Your task to perform on an android device: See recent photos Image 0: 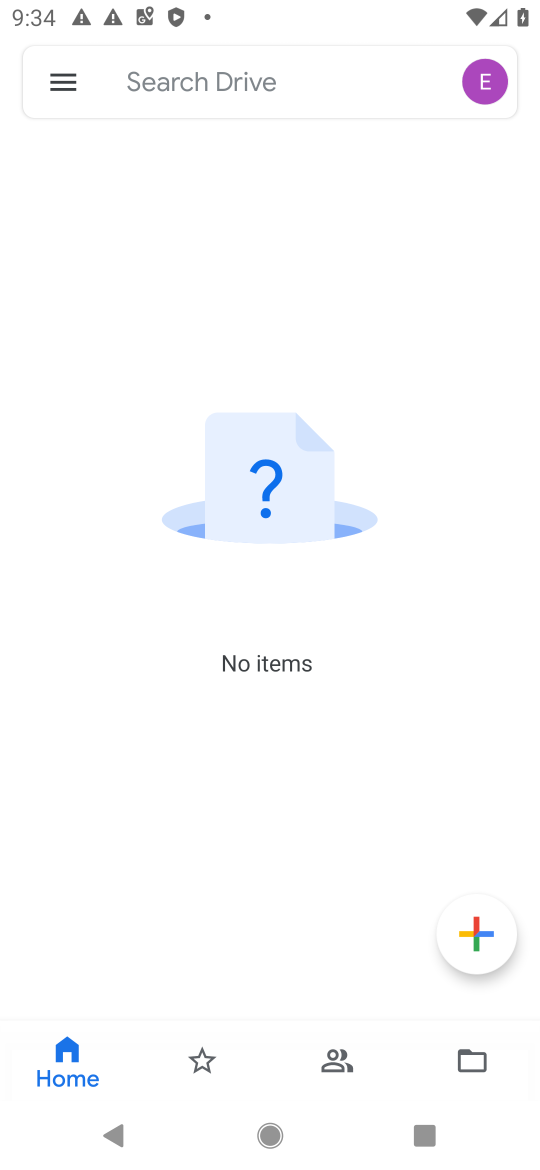
Step 0: press home button
Your task to perform on an android device: See recent photos Image 1: 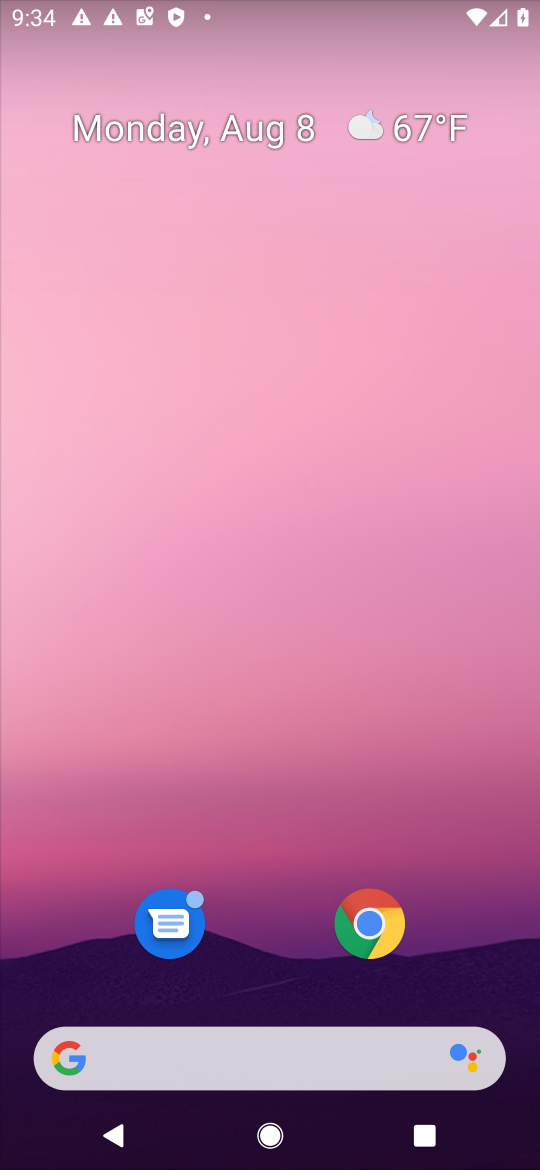
Step 1: drag from (20, 1121) to (228, 211)
Your task to perform on an android device: See recent photos Image 2: 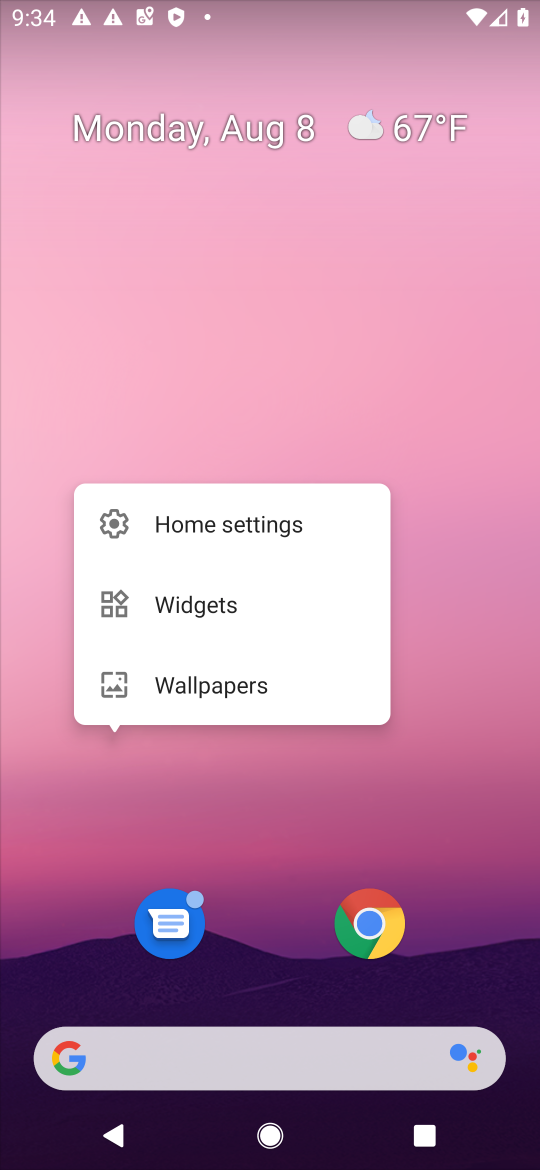
Step 2: drag from (56, 1136) to (352, 194)
Your task to perform on an android device: See recent photos Image 3: 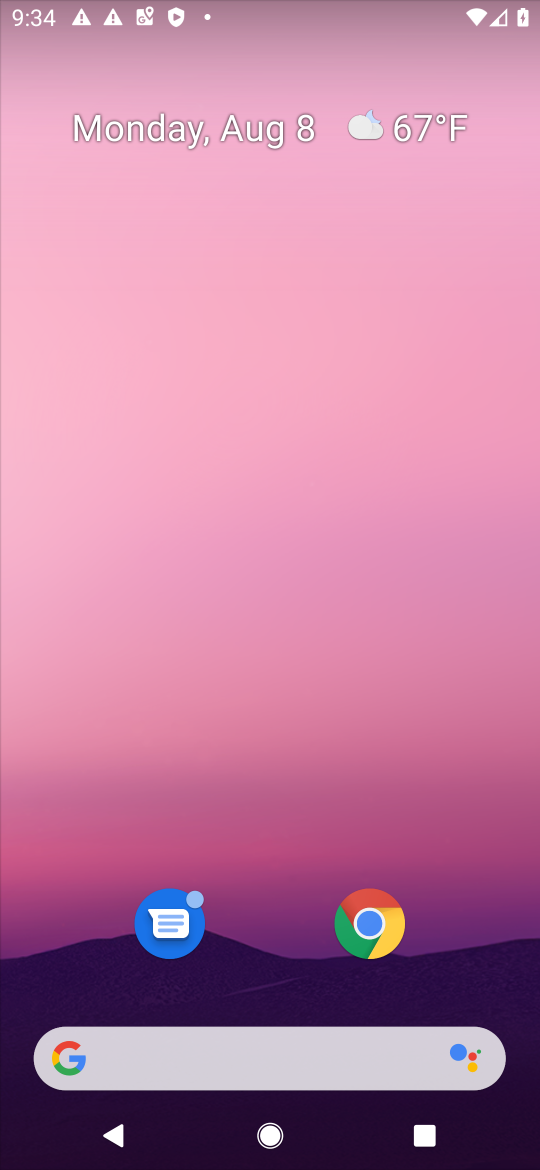
Step 3: drag from (41, 1122) to (294, 364)
Your task to perform on an android device: See recent photos Image 4: 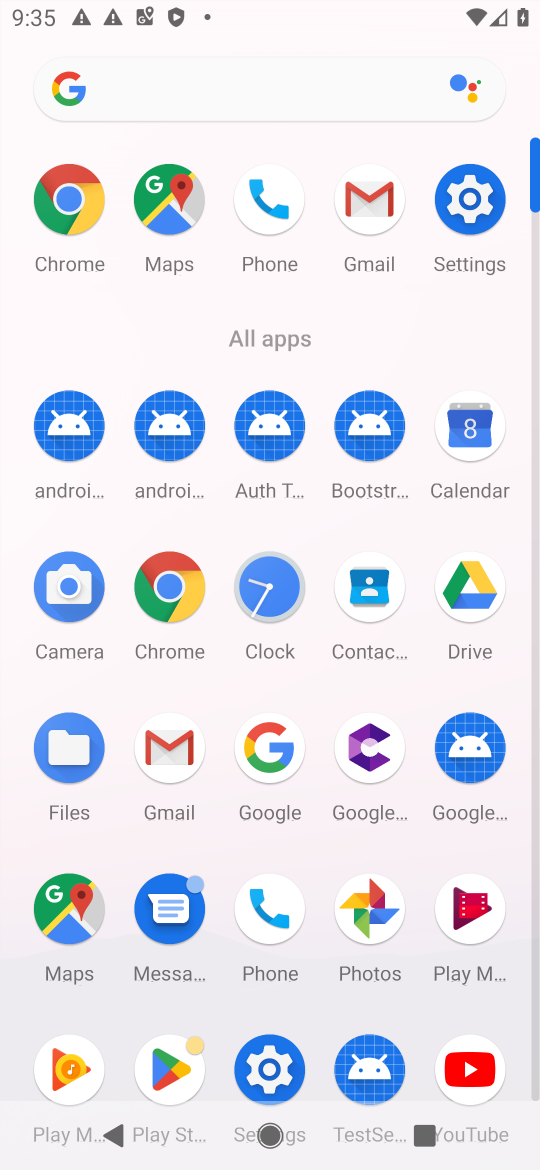
Step 4: click (344, 902)
Your task to perform on an android device: See recent photos Image 5: 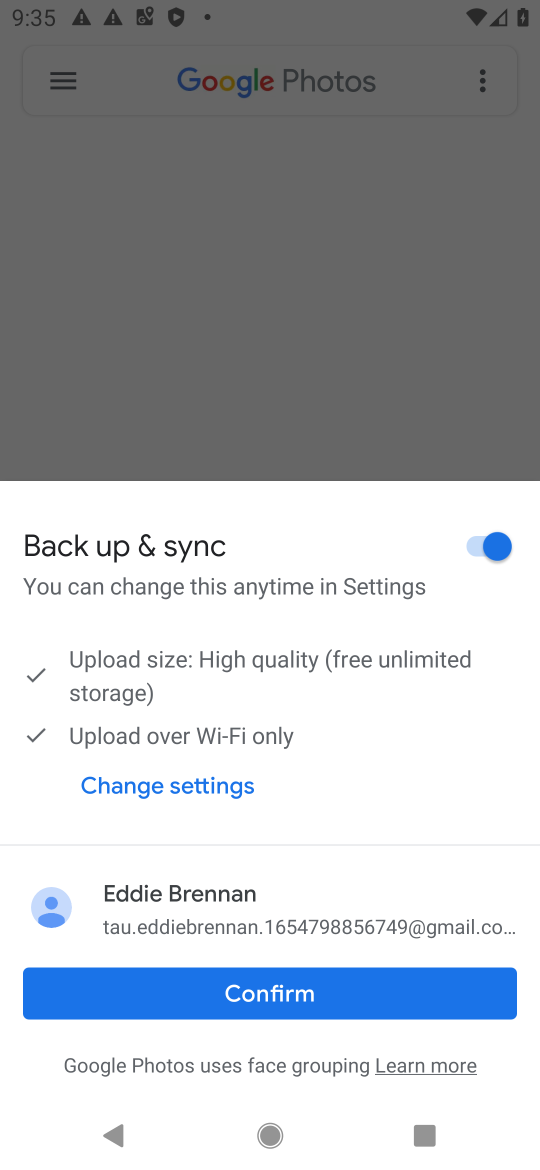
Step 5: click (295, 982)
Your task to perform on an android device: See recent photos Image 6: 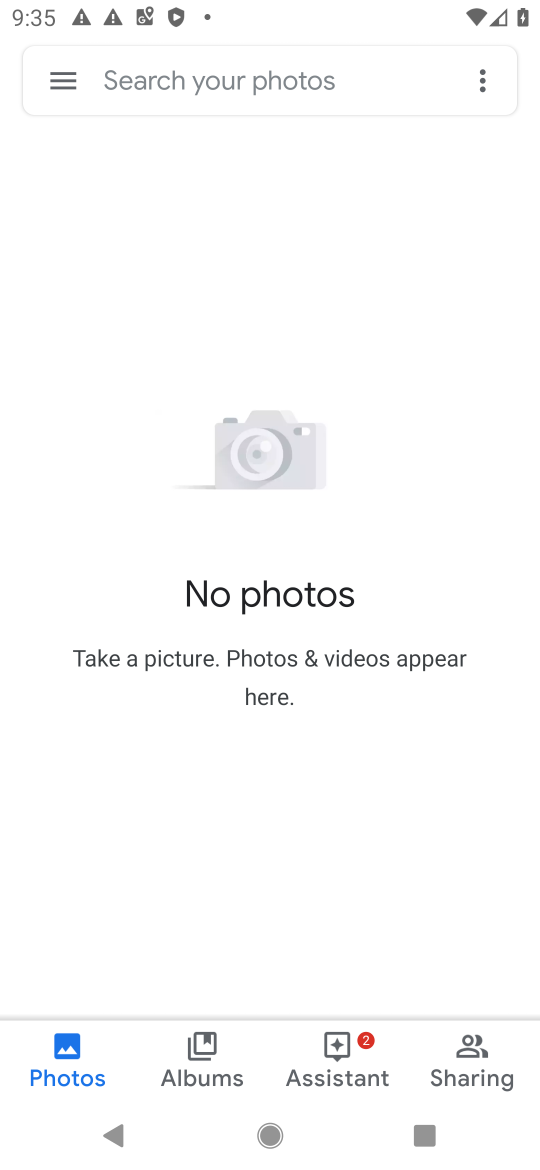
Step 6: task complete